Your task to perform on an android device: add a label to a message in the gmail app Image 0: 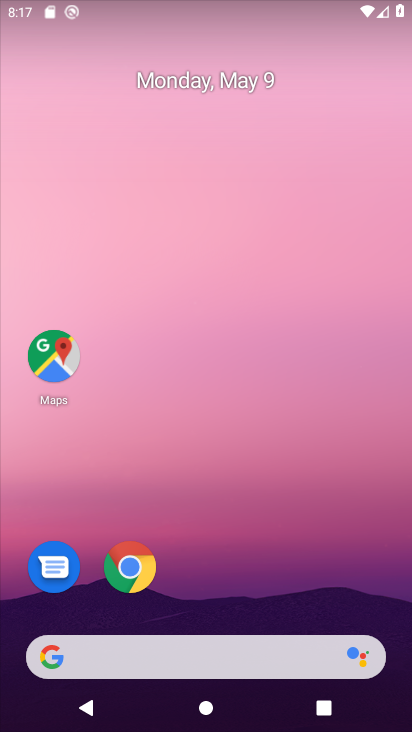
Step 0: drag from (300, 580) to (258, 40)
Your task to perform on an android device: add a label to a message in the gmail app Image 1: 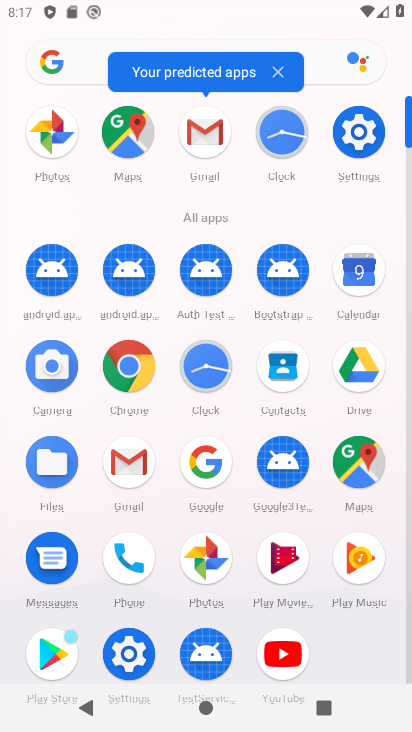
Step 1: click (121, 458)
Your task to perform on an android device: add a label to a message in the gmail app Image 2: 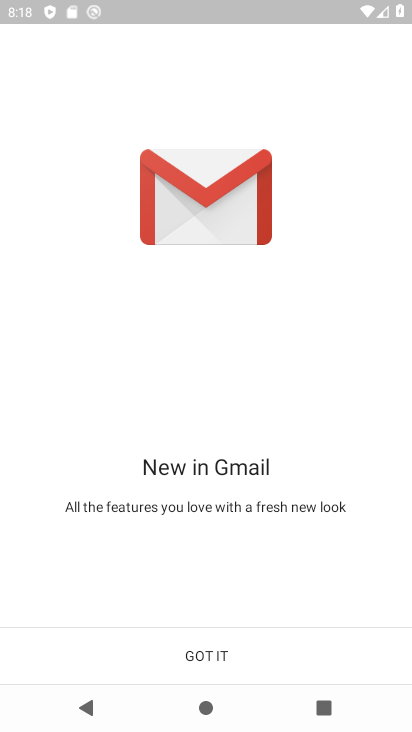
Step 2: click (245, 653)
Your task to perform on an android device: add a label to a message in the gmail app Image 3: 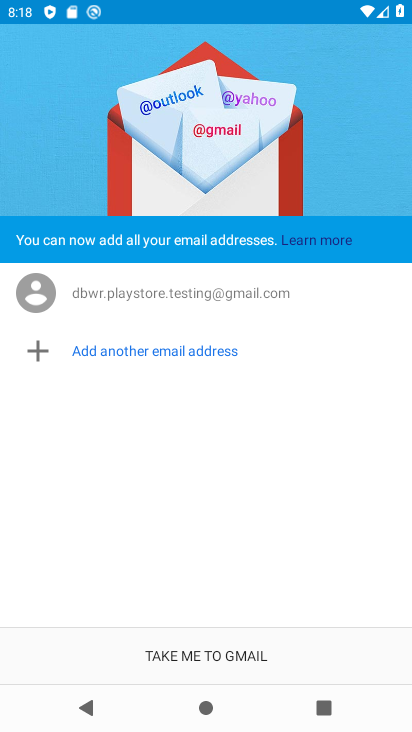
Step 3: click (205, 668)
Your task to perform on an android device: add a label to a message in the gmail app Image 4: 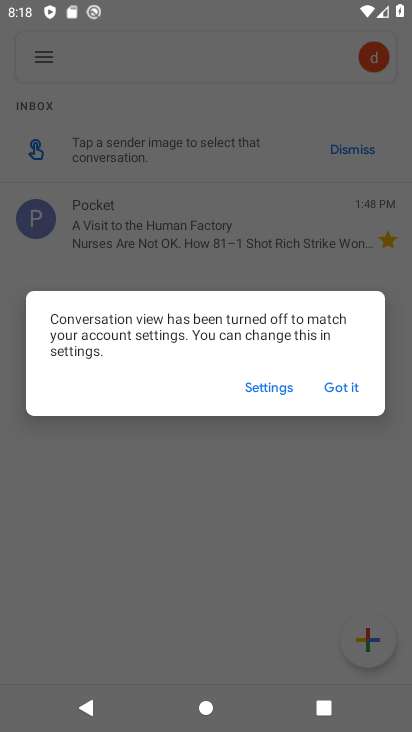
Step 4: click (345, 388)
Your task to perform on an android device: add a label to a message in the gmail app Image 5: 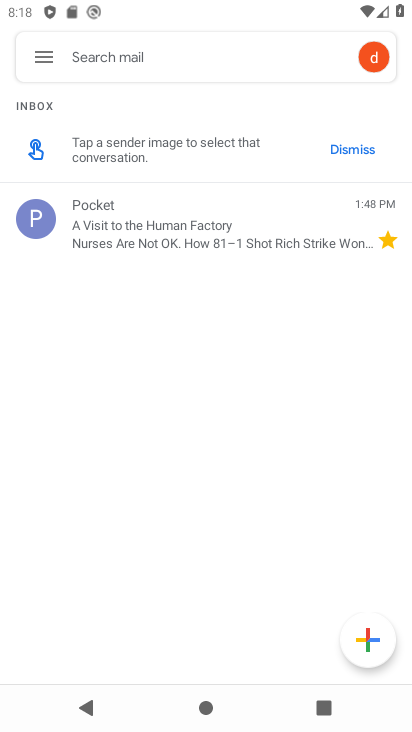
Step 5: click (219, 226)
Your task to perform on an android device: add a label to a message in the gmail app Image 6: 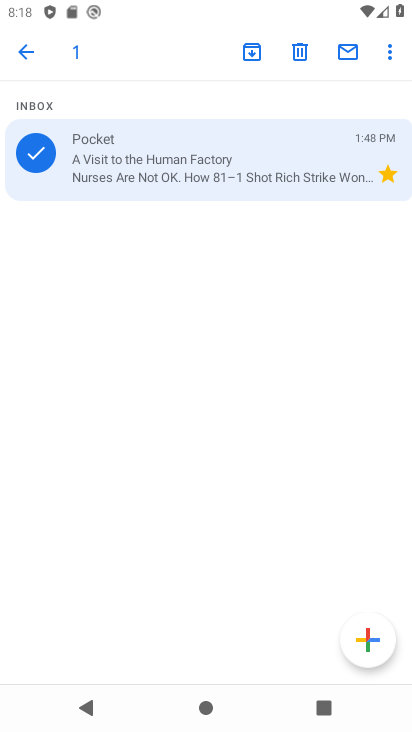
Step 6: click (389, 53)
Your task to perform on an android device: add a label to a message in the gmail app Image 7: 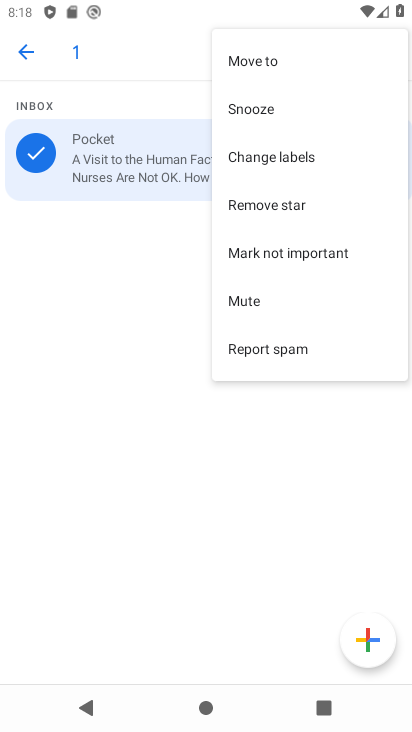
Step 7: click (260, 155)
Your task to perform on an android device: add a label to a message in the gmail app Image 8: 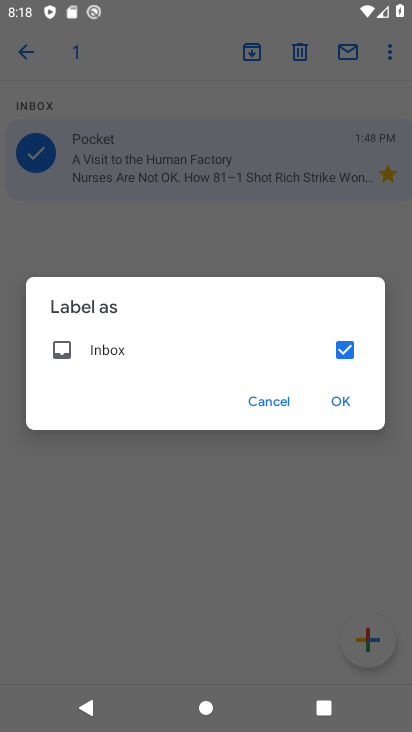
Step 8: click (339, 405)
Your task to perform on an android device: add a label to a message in the gmail app Image 9: 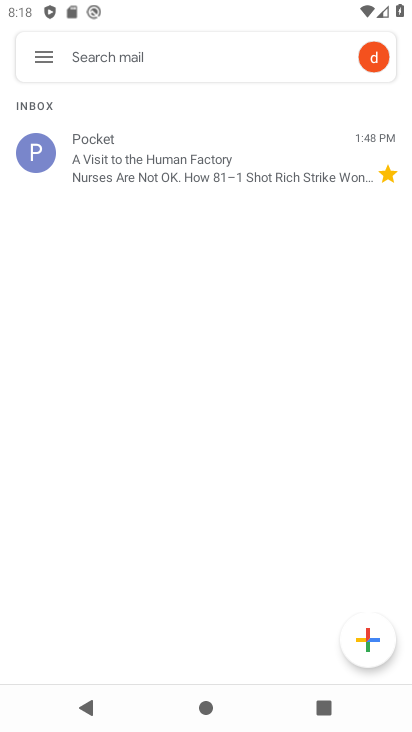
Step 9: task complete